Your task to perform on an android device: Open Google Chrome Image 0: 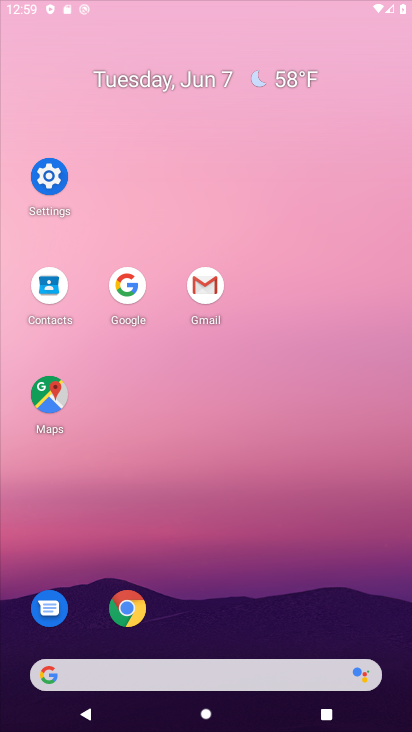
Step 0: press home button
Your task to perform on an android device: Open Google Chrome Image 1: 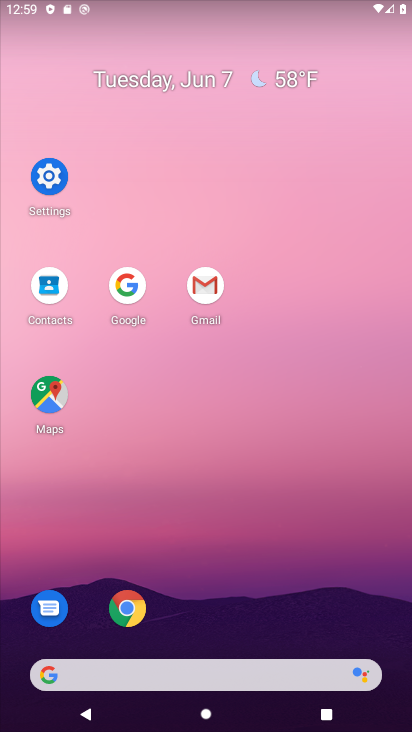
Step 1: click (122, 606)
Your task to perform on an android device: Open Google Chrome Image 2: 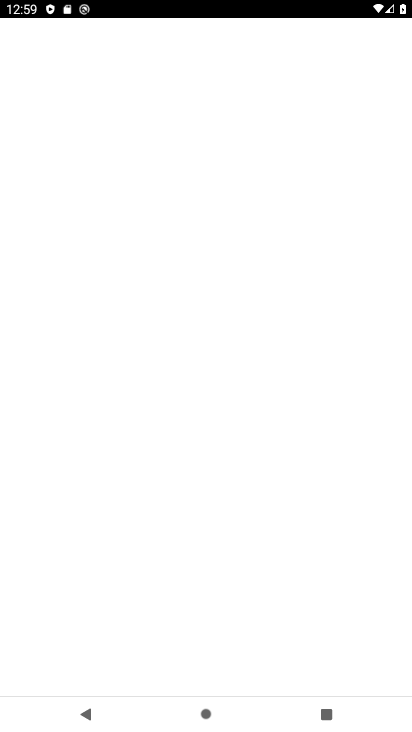
Step 2: task complete